Your task to perform on an android device: toggle improve location accuracy Image 0: 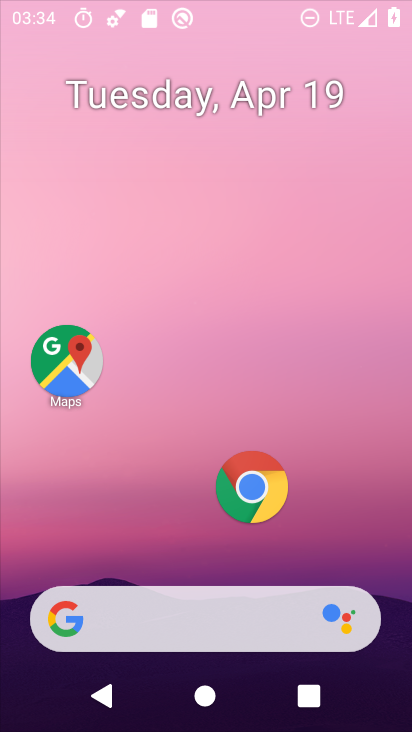
Step 0: drag from (175, 511) to (355, 33)
Your task to perform on an android device: toggle improve location accuracy Image 1: 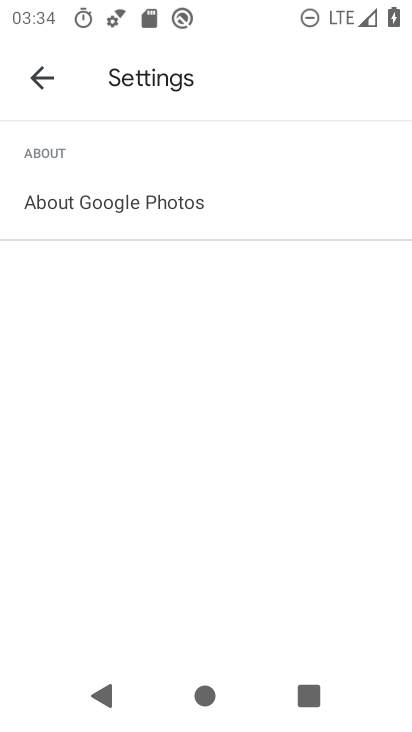
Step 1: press home button
Your task to perform on an android device: toggle improve location accuracy Image 2: 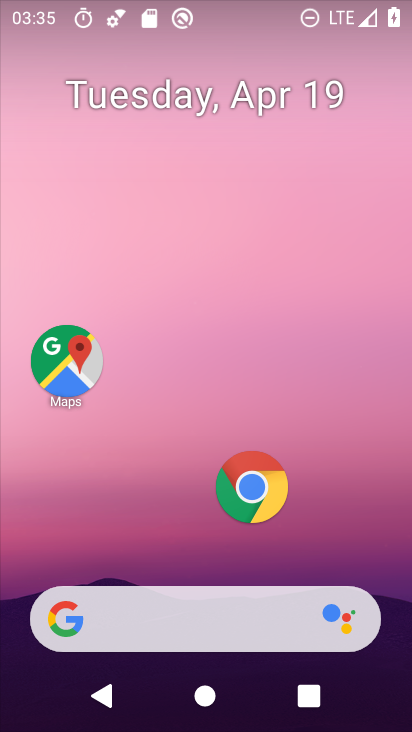
Step 2: drag from (100, 467) to (222, 38)
Your task to perform on an android device: toggle improve location accuracy Image 3: 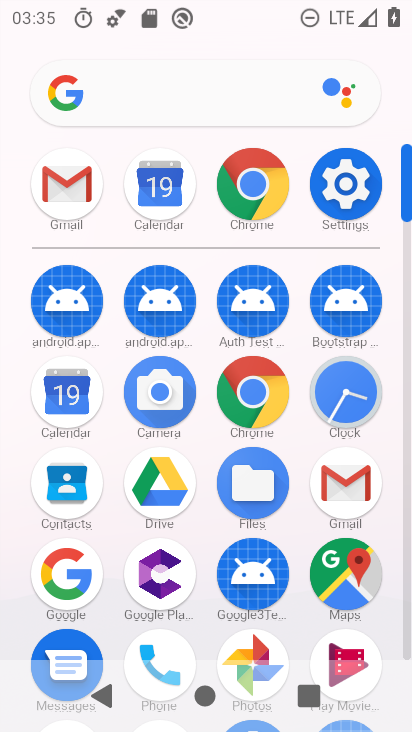
Step 3: click (345, 192)
Your task to perform on an android device: toggle improve location accuracy Image 4: 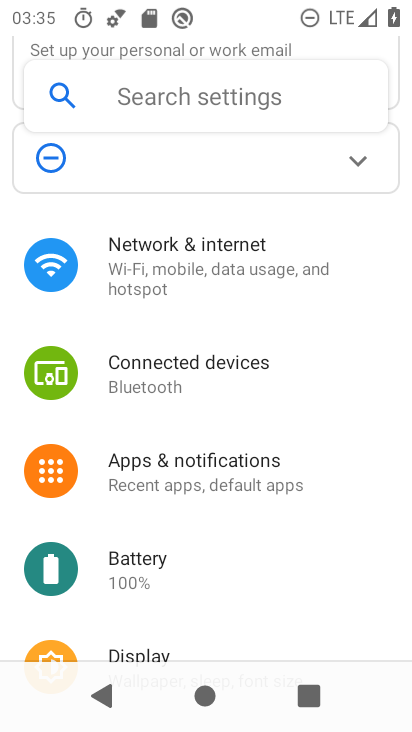
Step 4: drag from (186, 587) to (280, 118)
Your task to perform on an android device: toggle improve location accuracy Image 5: 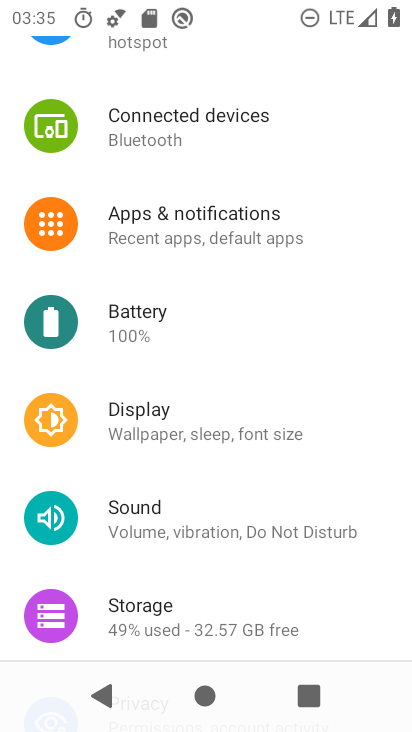
Step 5: drag from (208, 555) to (273, 50)
Your task to perform on an android device: toggle improve location accuracy Image 6: 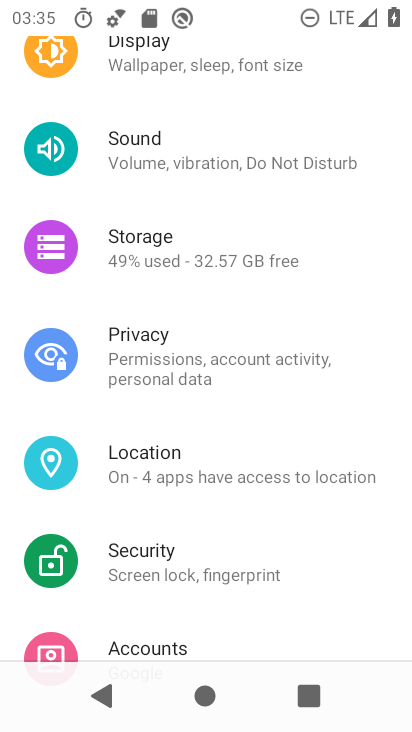
Step 6: click (164, 470)
Your task to perform on an android device: toggle improve location accuracy Image 7: 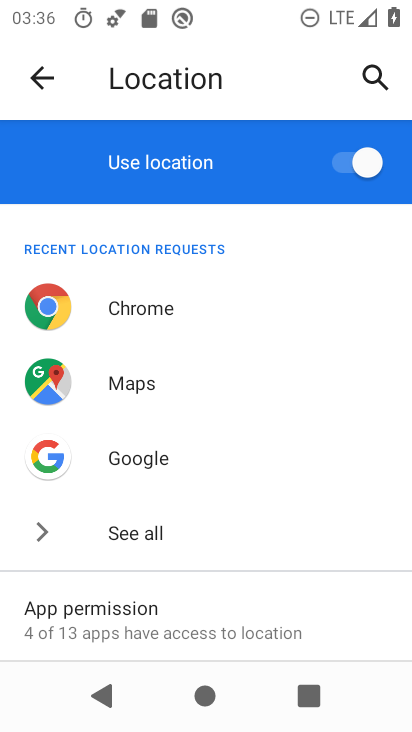
Step 7: drag from (189, 608) to (218, 146)
Your task to perform on an android device: toggle improve location accuracy Image 8: 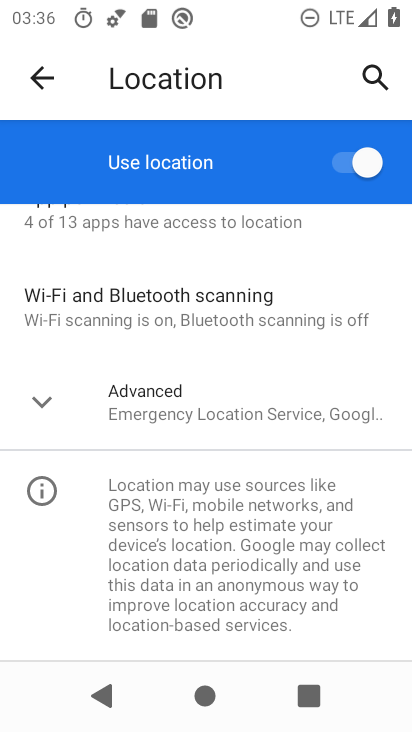
Step 8: click (248, 394)
Your task to perform on an android device: toggle improve location accuracy Image 9: 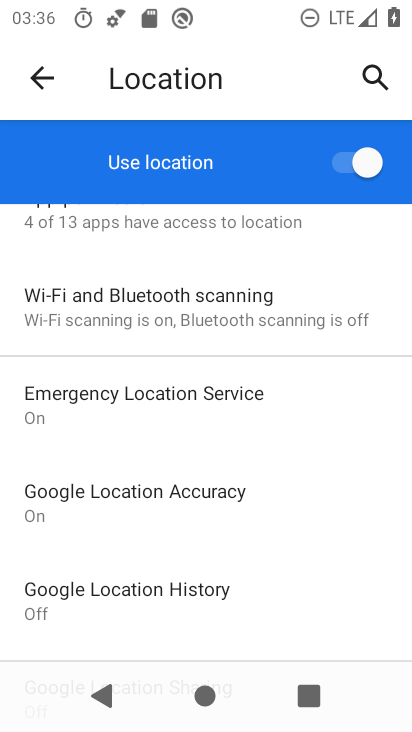
Step 9: click (178, 490)
Your task to perform on an android device: toggle improve location accuracy Image 10: 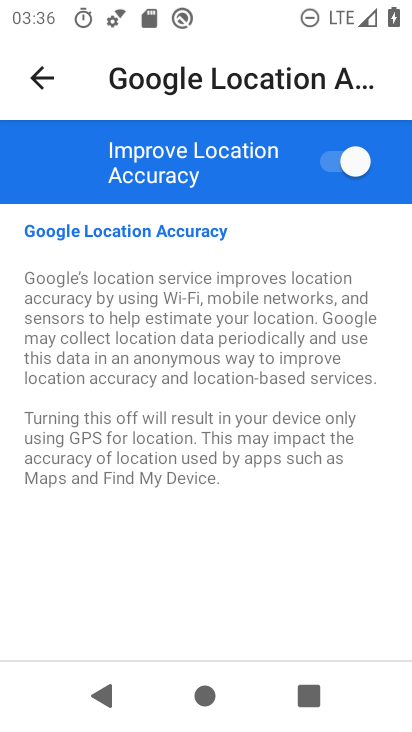
Step 10: click (352, 155)
Your task to perform on an android device: toggle improve location accuracy Image 11: 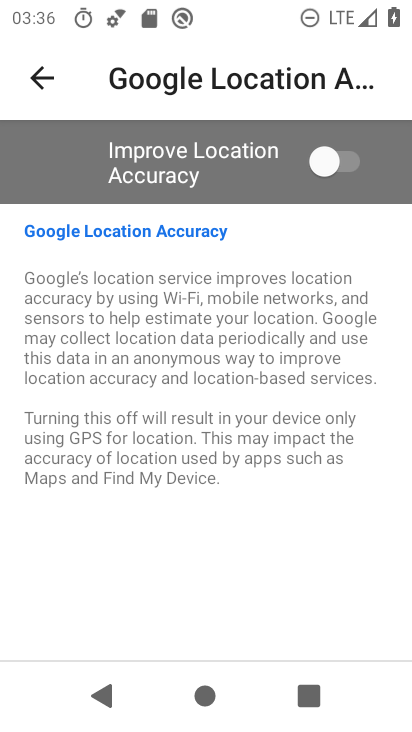
Step 11: task complete